Your task to perform on an android device: empty trash in google photos Image 0: 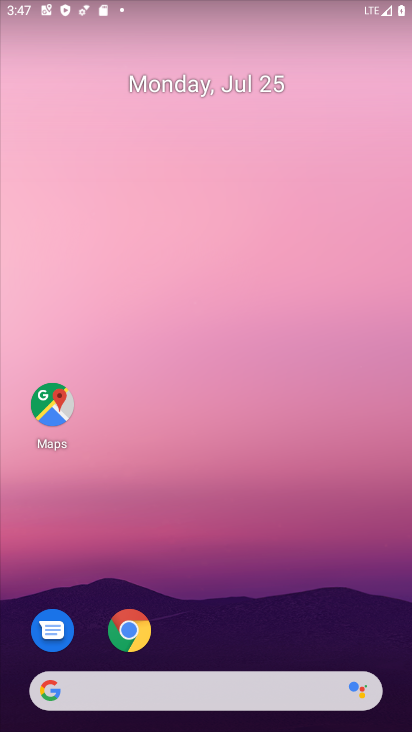
Step 0: drag from (221, 640) to (249, 169)
Your task to perform on an android device: empty trash in google photos Image 1: 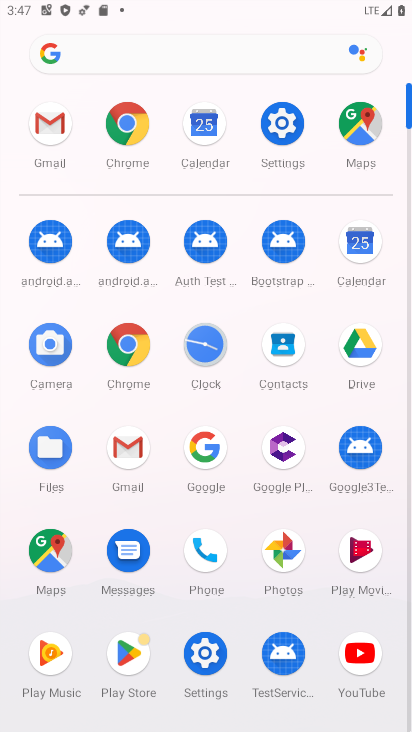
Step 1: click (279, 572)
Your task to perform on an android device: empty trash in google photos Image 2: 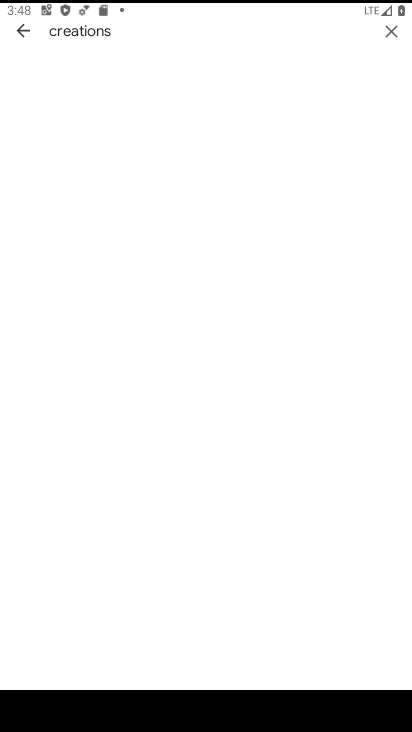
Step 2: click (17, 34)
Your task to perform on an android device: empty trash in google photos Image 3: 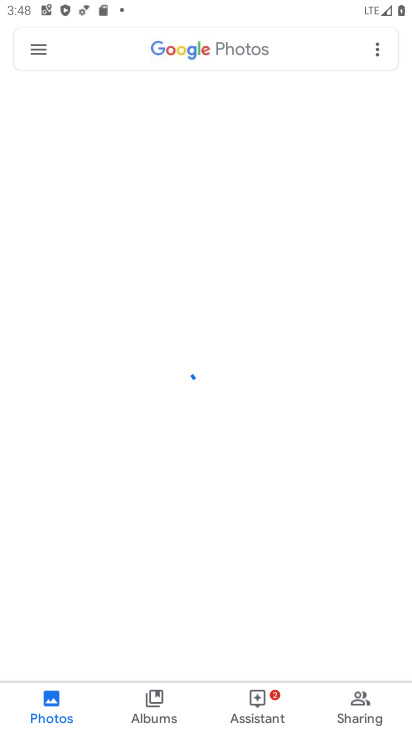
Step 3: click (34, 46)
Your task to perform on an android device: empty trash in google photos Image 4: 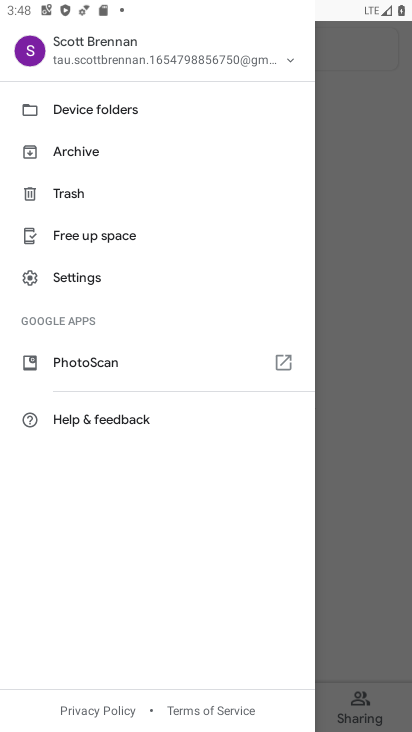
Step 4: click (63, 190)
Your task to perform on an android device: empty trash in google photos Image 5: 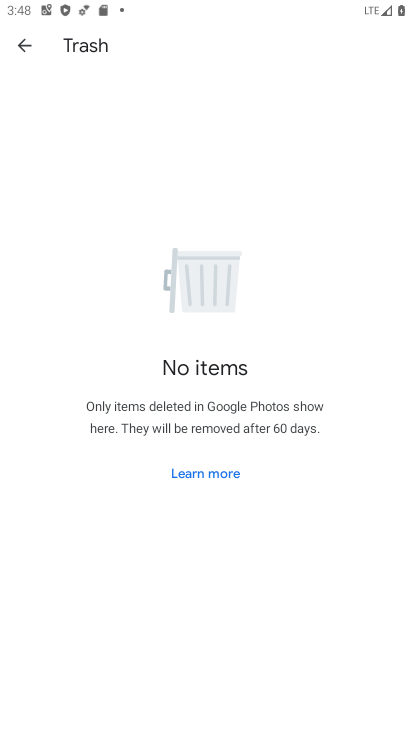
Step 5: task complete